Your task to perform on an android device: move a message to another label in the gmail app Image 0: 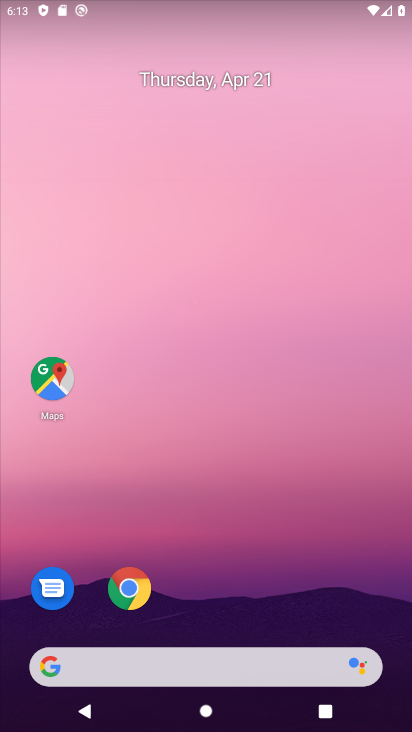
Step 0: drag from (292, 544) to (286, 191)
Your task to perform on an android device: move a message to another label in the gmail app Image 1: 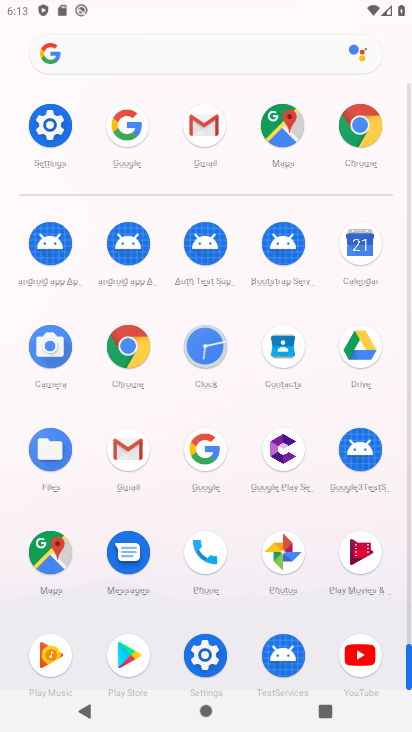
Step 1: drag from (255, 443) to (294, 262)
Your task to perform on an android device: move a message to another label in the gmail app Image 2: 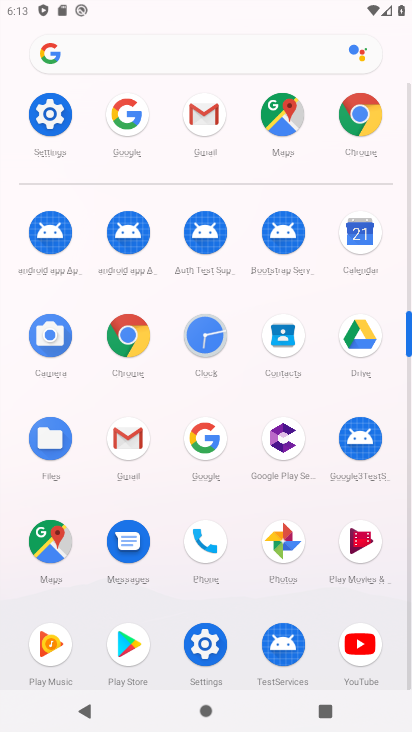
Step 2: click (141, 454)
Your task to perform on an android device: move a message to another label in the gmail app Image 3: 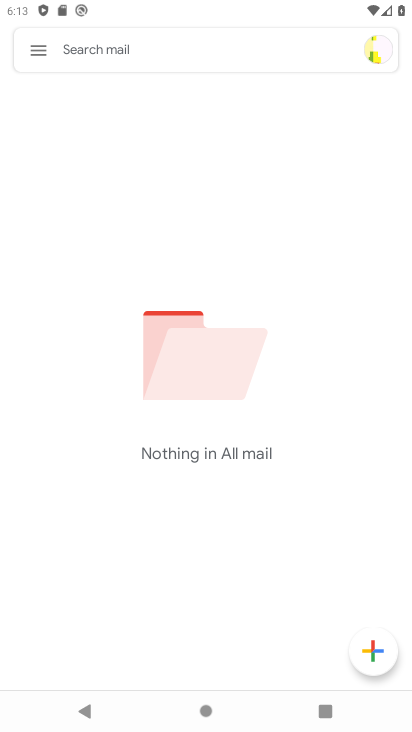
Step 3: task complete